Your task to perform on an android device: What's the weather? Image 0: 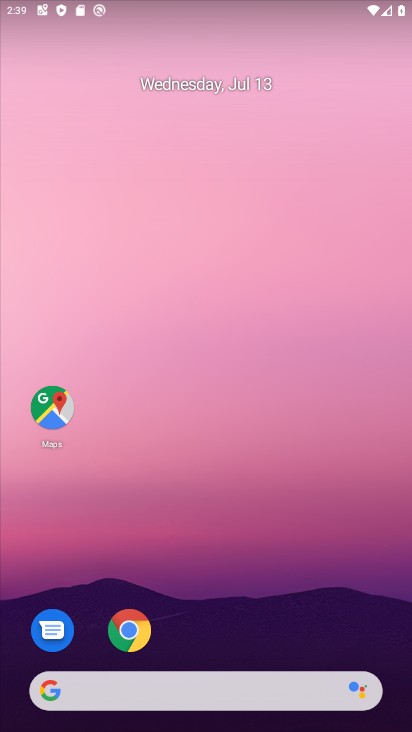
Step 0: click (199, 684)
Your task to perform on an android device: What's the weather? Image 1: 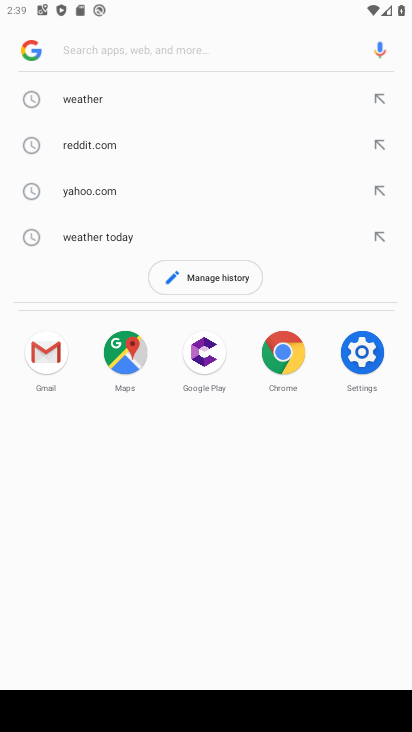
Step 1: click (94, 107)
Your task to perform on an android device: What's the weather? Image 2: 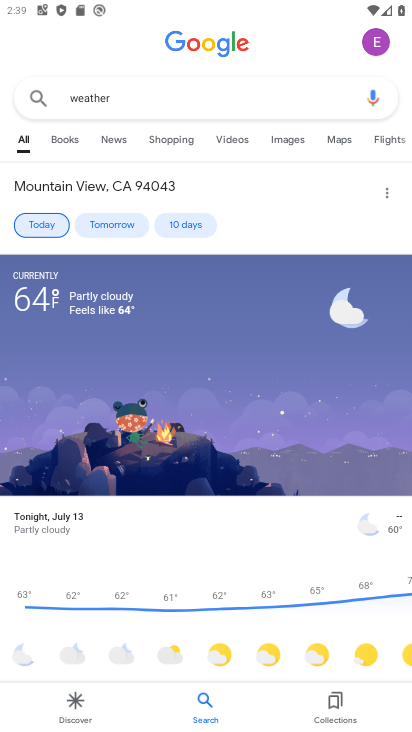
Step 2: task complete